Your task to perform on an android device: Turn on the flashlight Image 0: 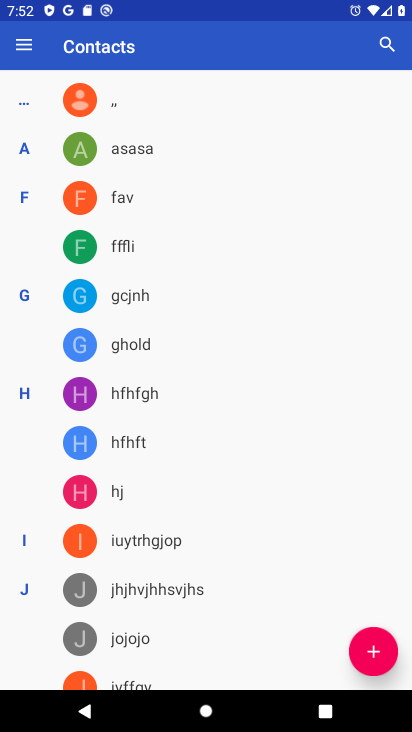
Step 0: press home button
Your task to perform on an android device: Turn on the flashlight Image 1: 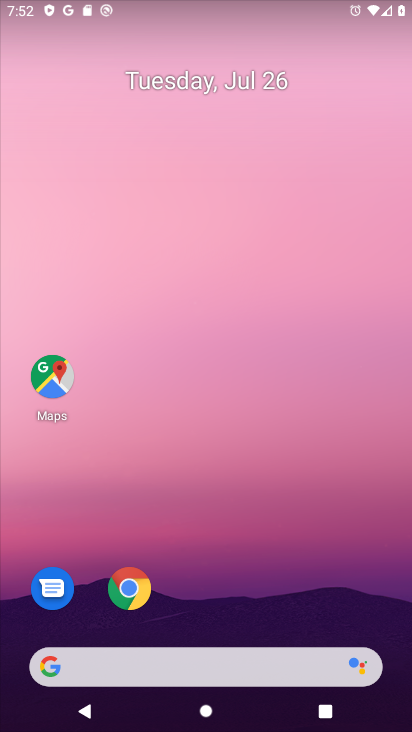
Step 1: task complete